Your task to perform on an android device: Show me productivity apps on the Play Store Image 0: 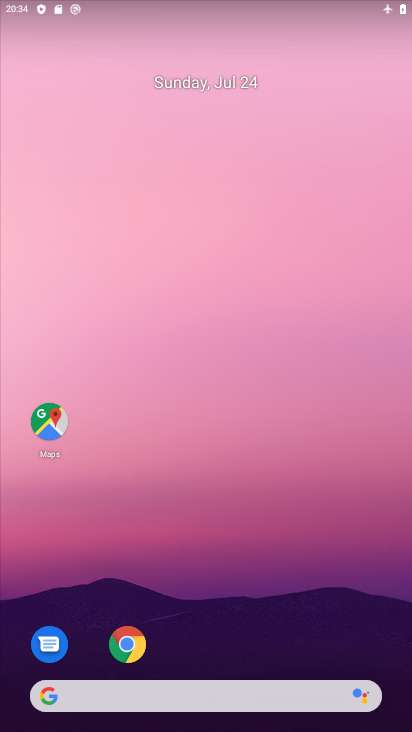
Step 0: drag from (367, 645) to (349, 68)
Your task to perform on an android device: Show me productivity apps on the Play Store Image 1: 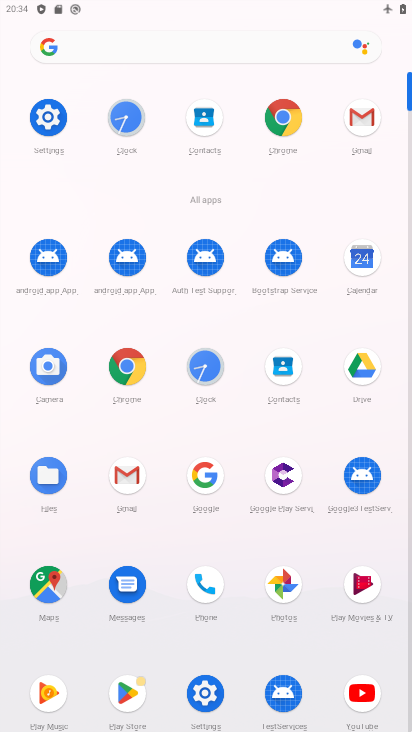
Step 1: click (128, 693)
Your task to perform on an android device: Show me productivity apps on the Play Store Image 2: 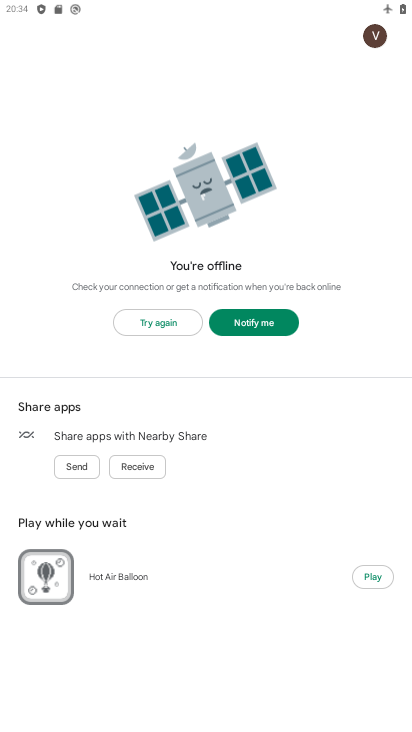
Step 2: click (154, 320)
Your task to perform on an android device: Show me productivity apps on the Play Store Image 3: 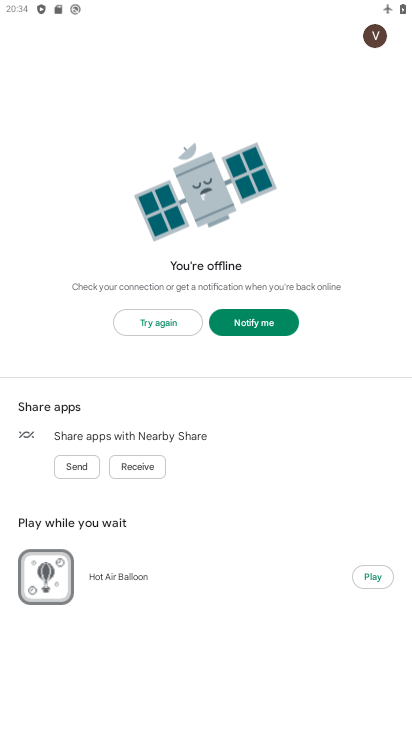
Step 3: click (154, 320)
Your task to perform on an android device: Show me productivity apps on the Play Store Image 4: 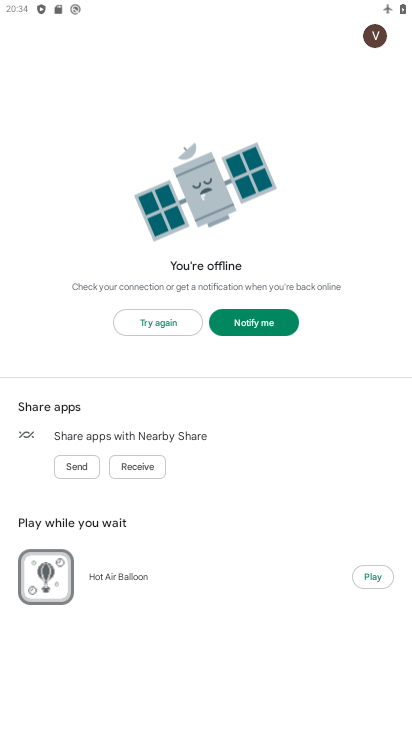
Step 4: task complete